Your task to perform on an android device: turn vacation reply on in the gmail app Image 0: 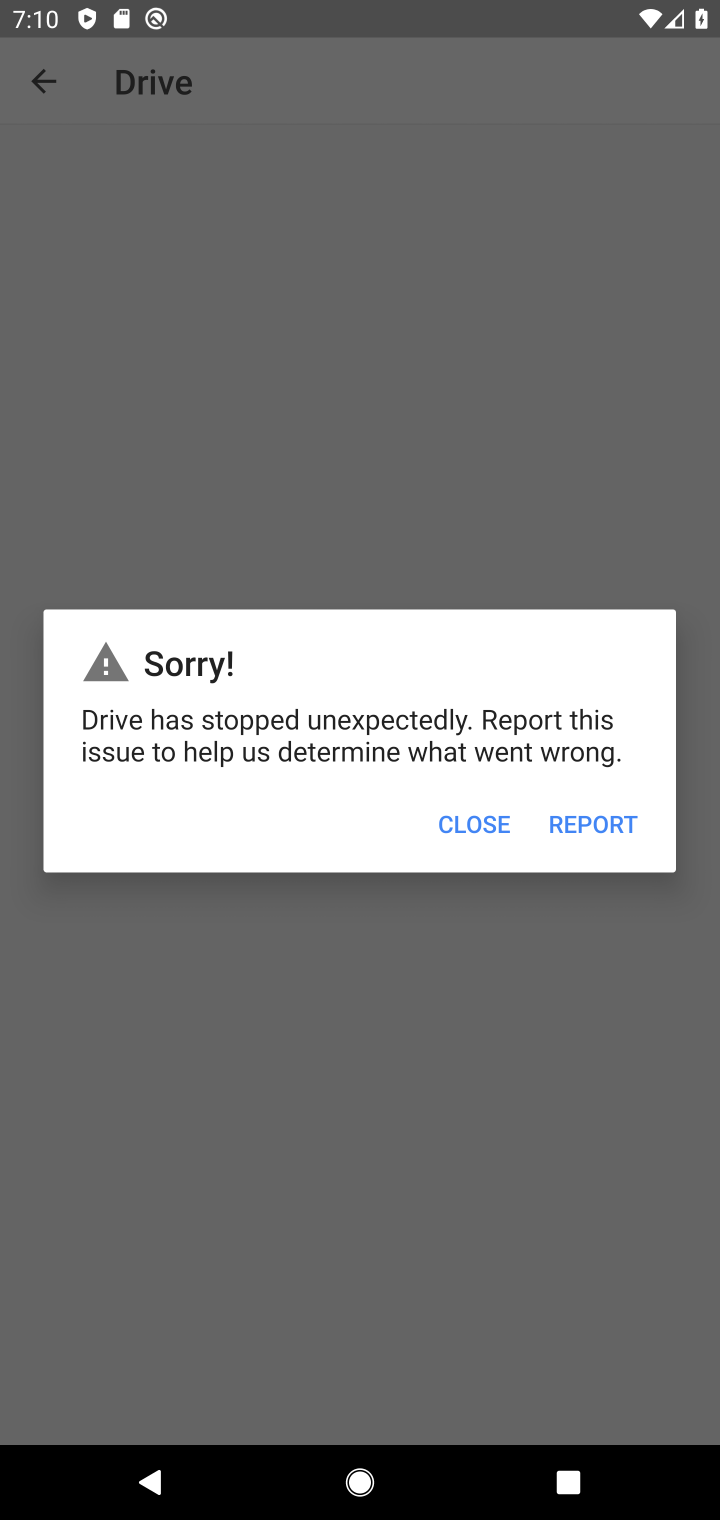
Step 0: drag from (245, 1250) to (469, 254)
Your task to perform on an android device: turn vacation reply on in the gmail app Image 1: 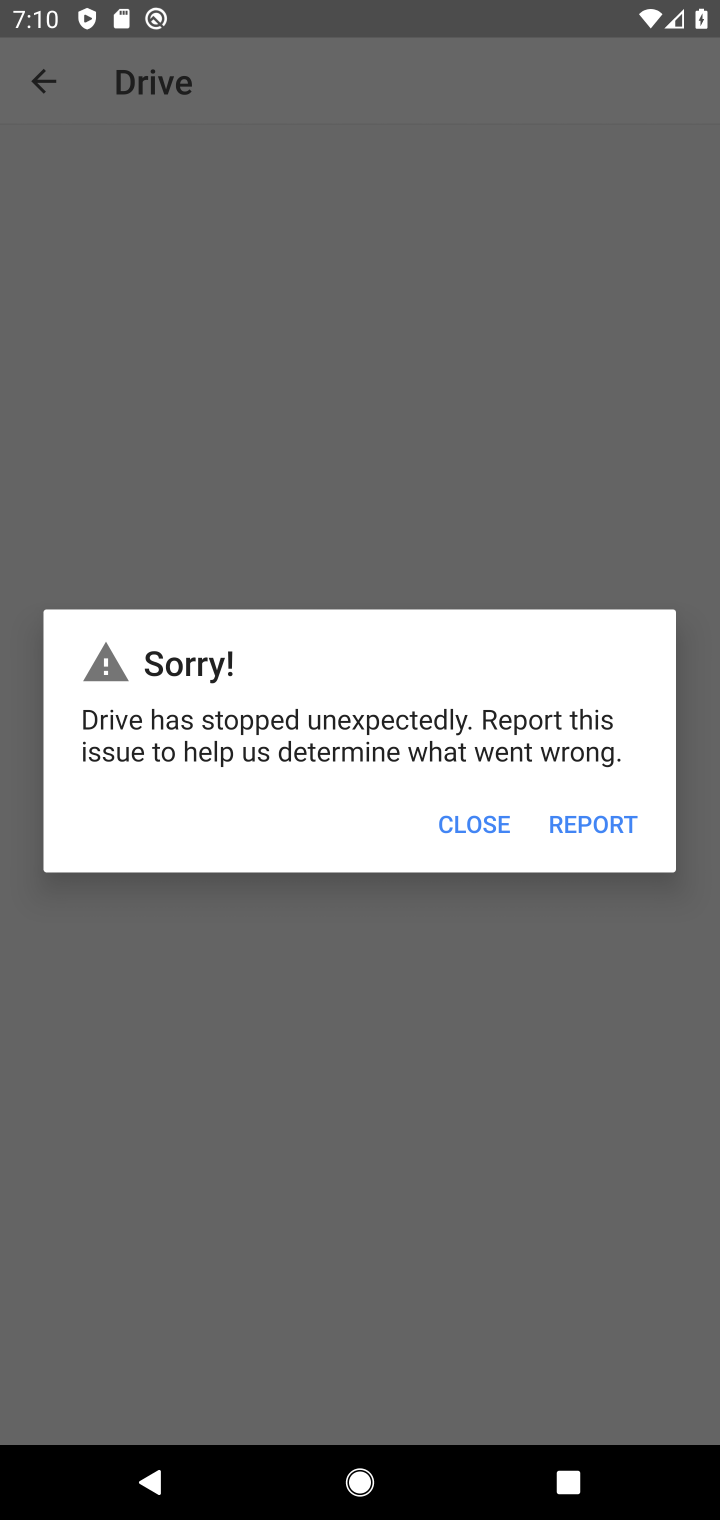
Step 1: drag from (407, 1308) to (517, 348)
Your task to perform on an android device: turn vacation reply on in the gmail app Image 2: 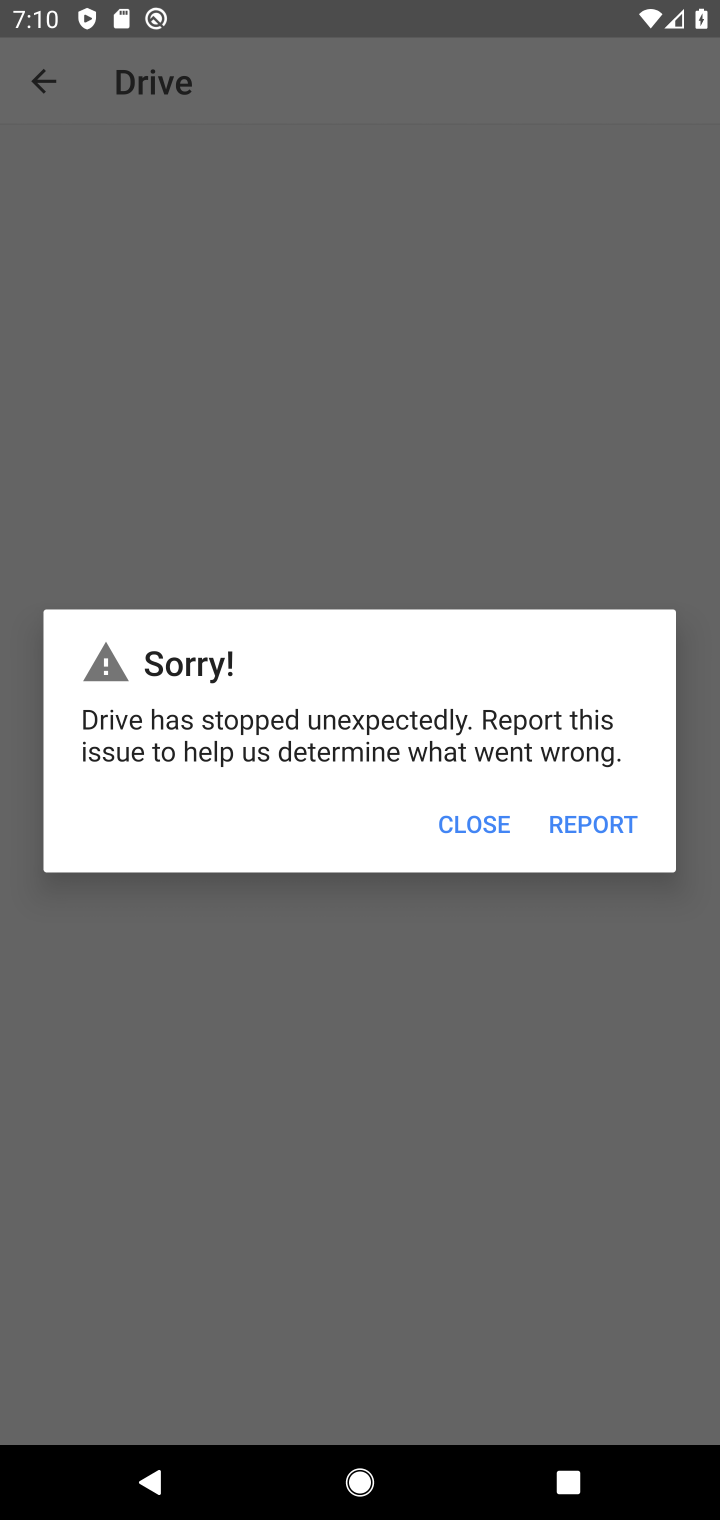
Step 2: press home button
Your task to perform on an android device: turn vacation reply on in the gmail app Image 3: 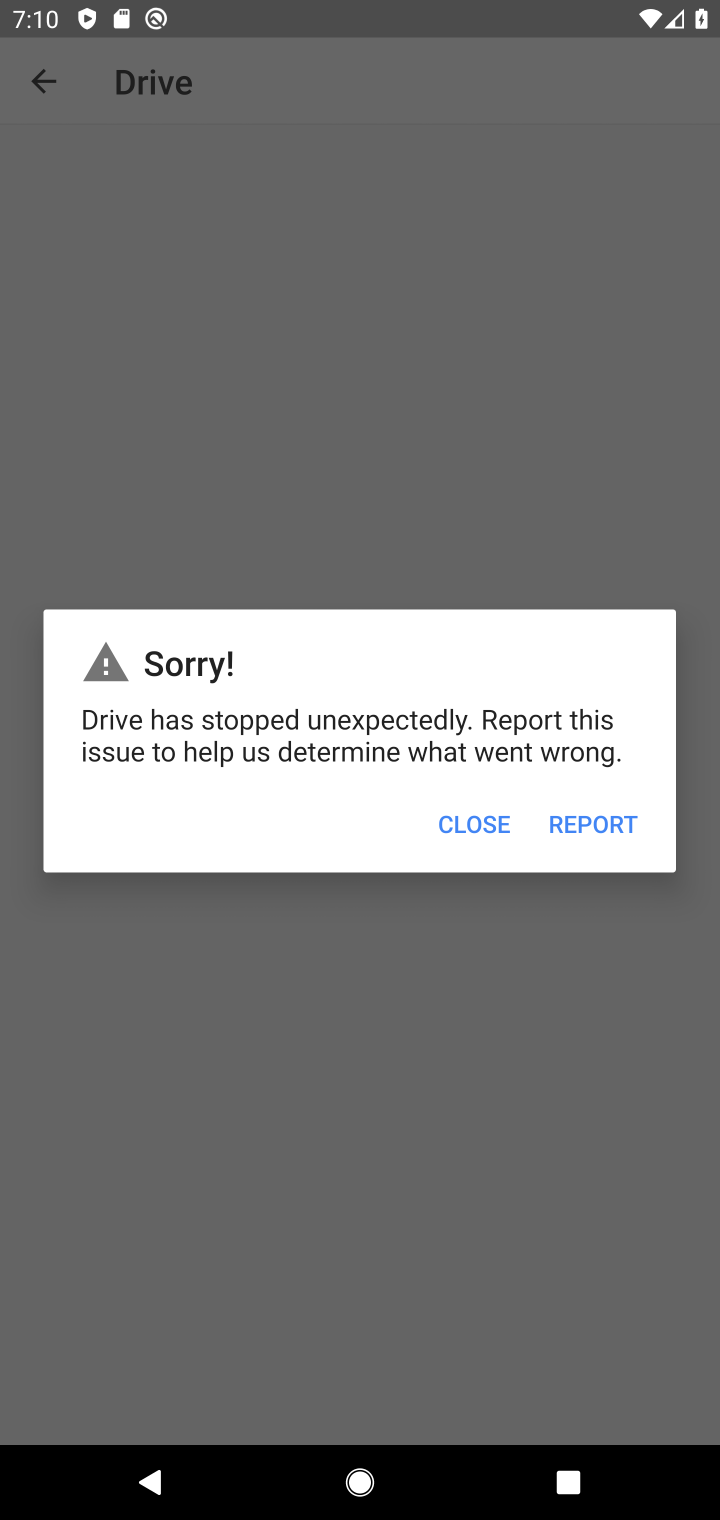
Step 3: drag from (294, 1212) to (531, 148)
Your task to perform on an android device: turn vacation reply on in the gmail app Image 4: 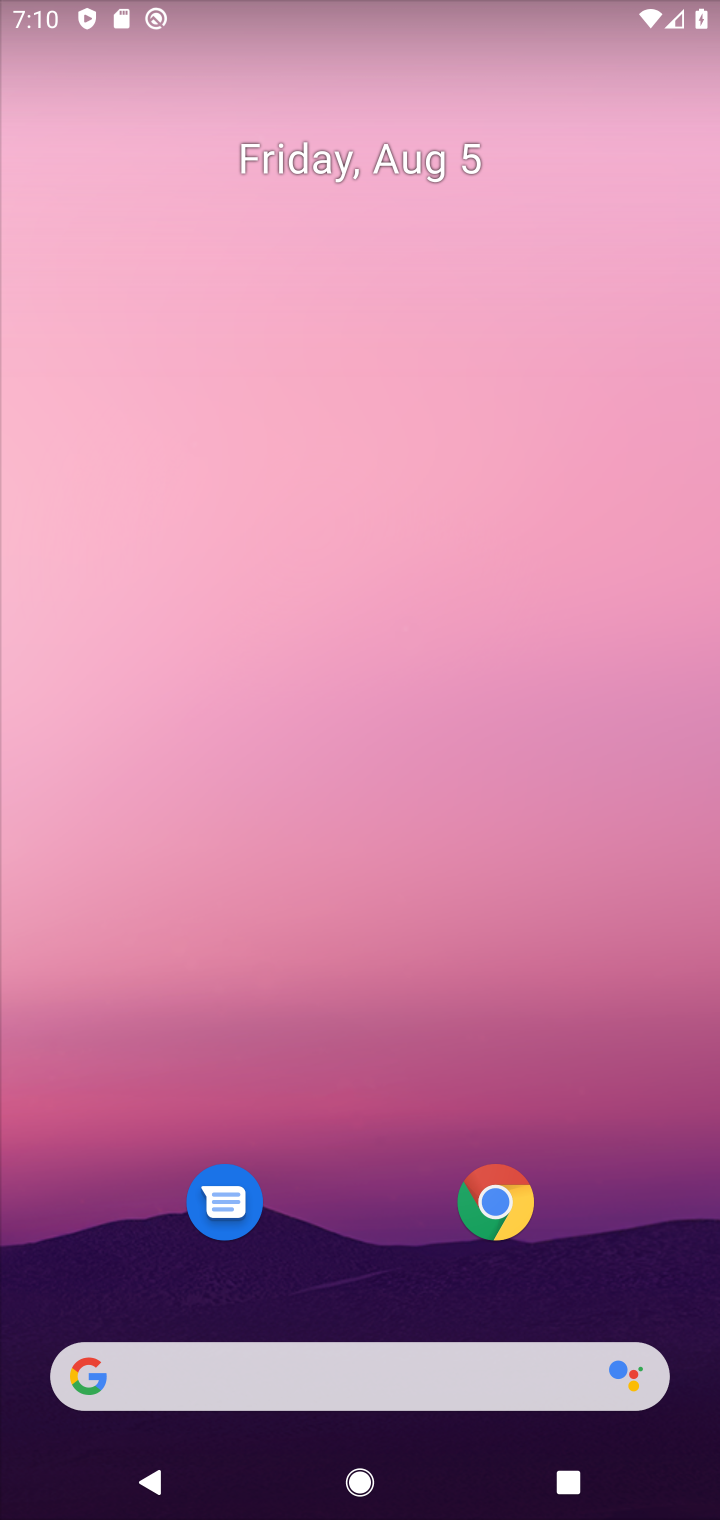
Step 4: drag from (328, 1127) to (350, 91)
Your task to perform on an android device: turn vacation reply on in the gmail app Image 5: 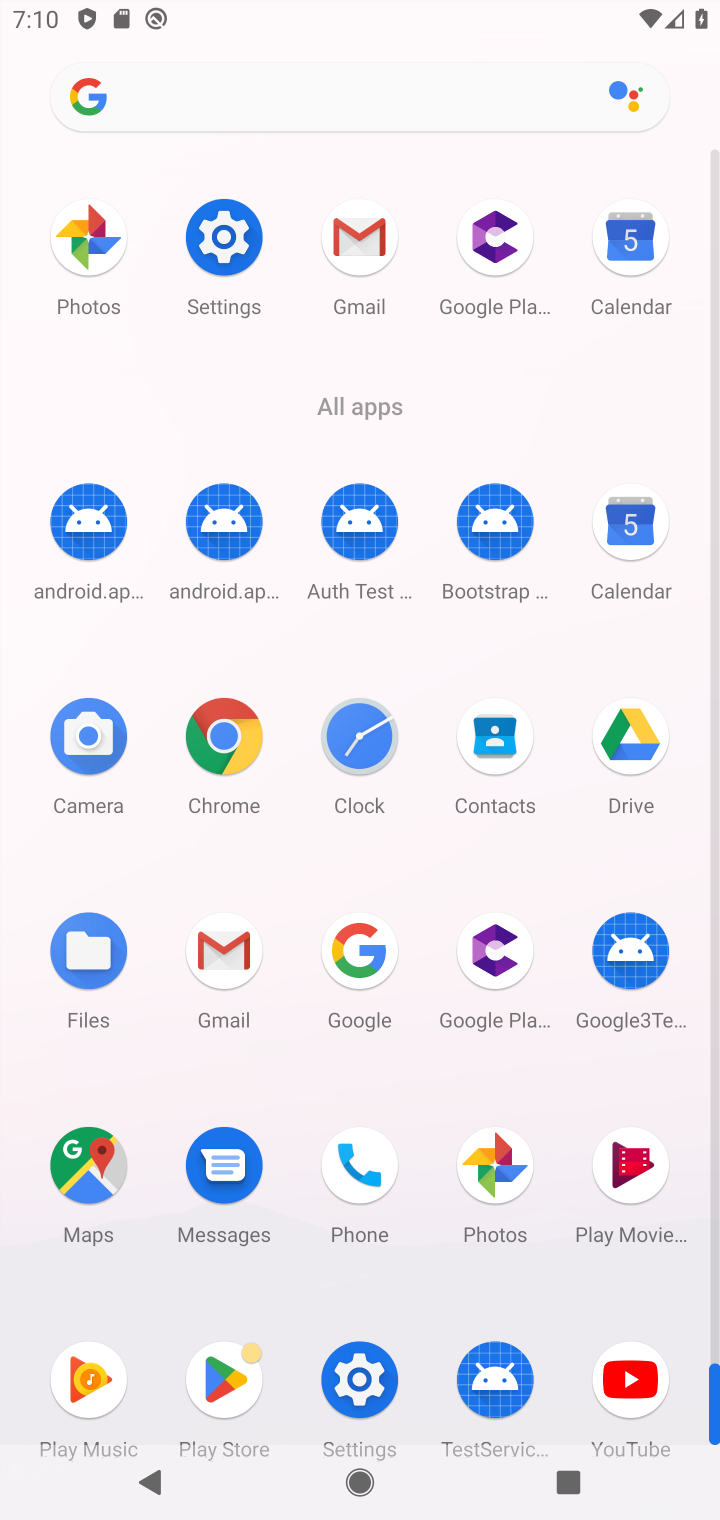
Step 5: click (216, 957)
Your task to perform on an android device: turn vacation reply on in the gmail app Image 6: 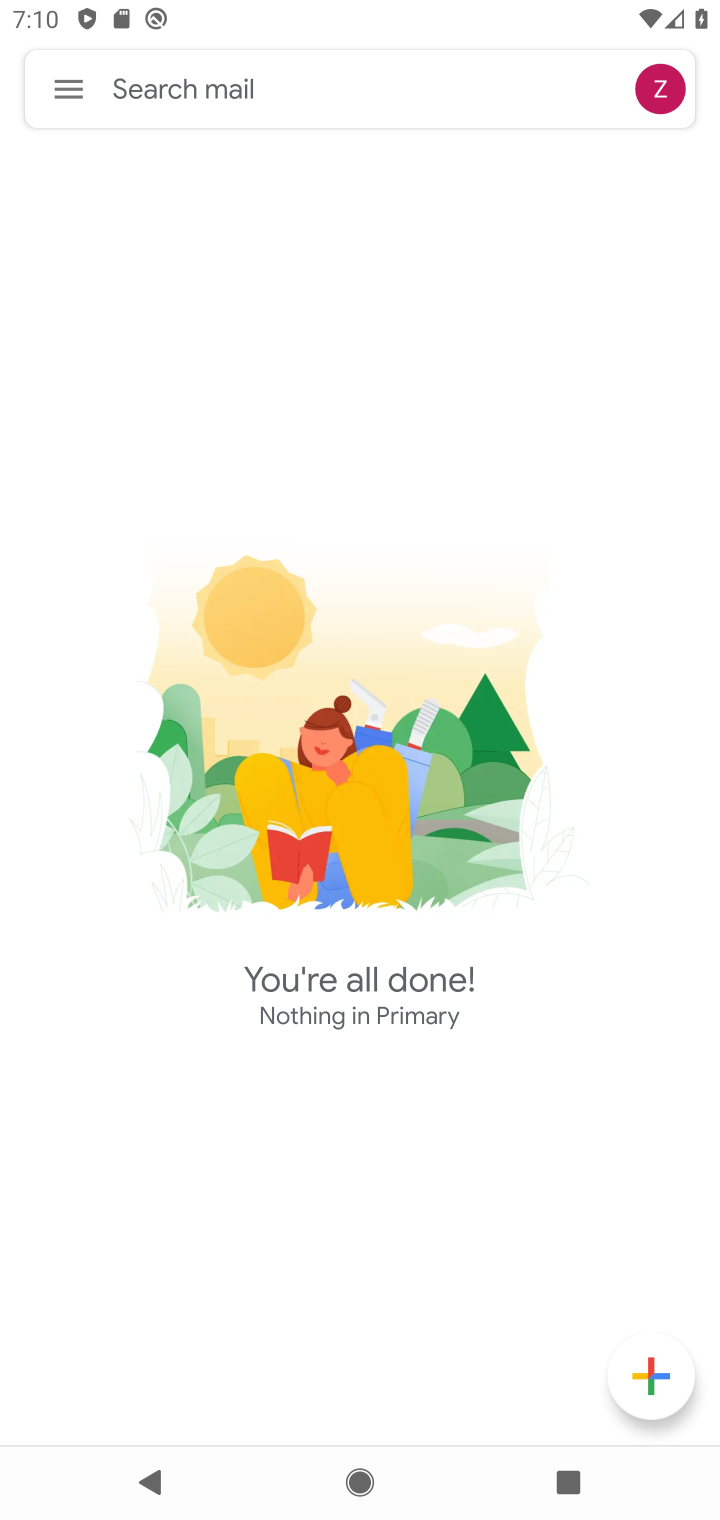
Step 6: click (79, 93)
Your task to perform on an android device: turn vacation reply on in the gmail app Image 7: 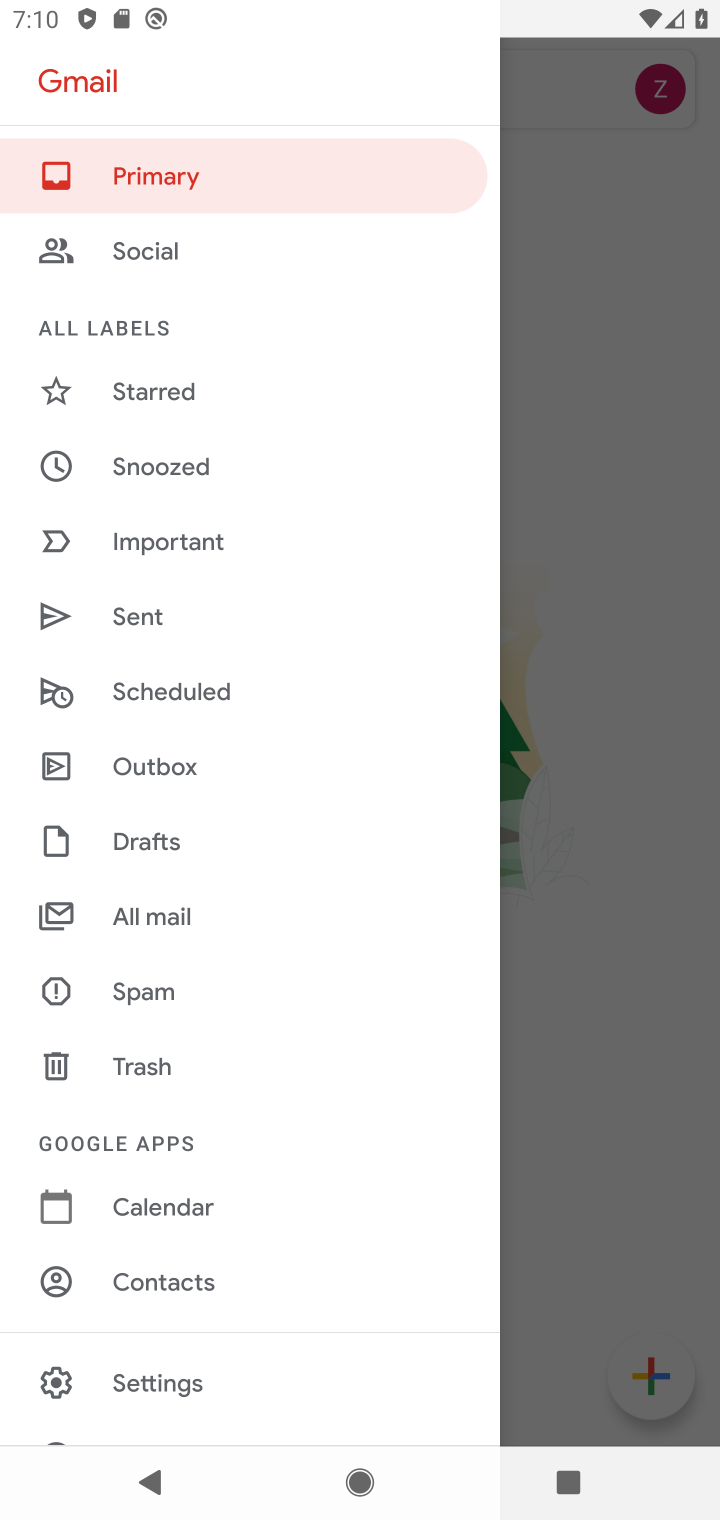
Step 7: drag from (238, 1230) to (430, 480)
Your task to perform on an android device: turn vacation reply on in the gmail app Image 8: 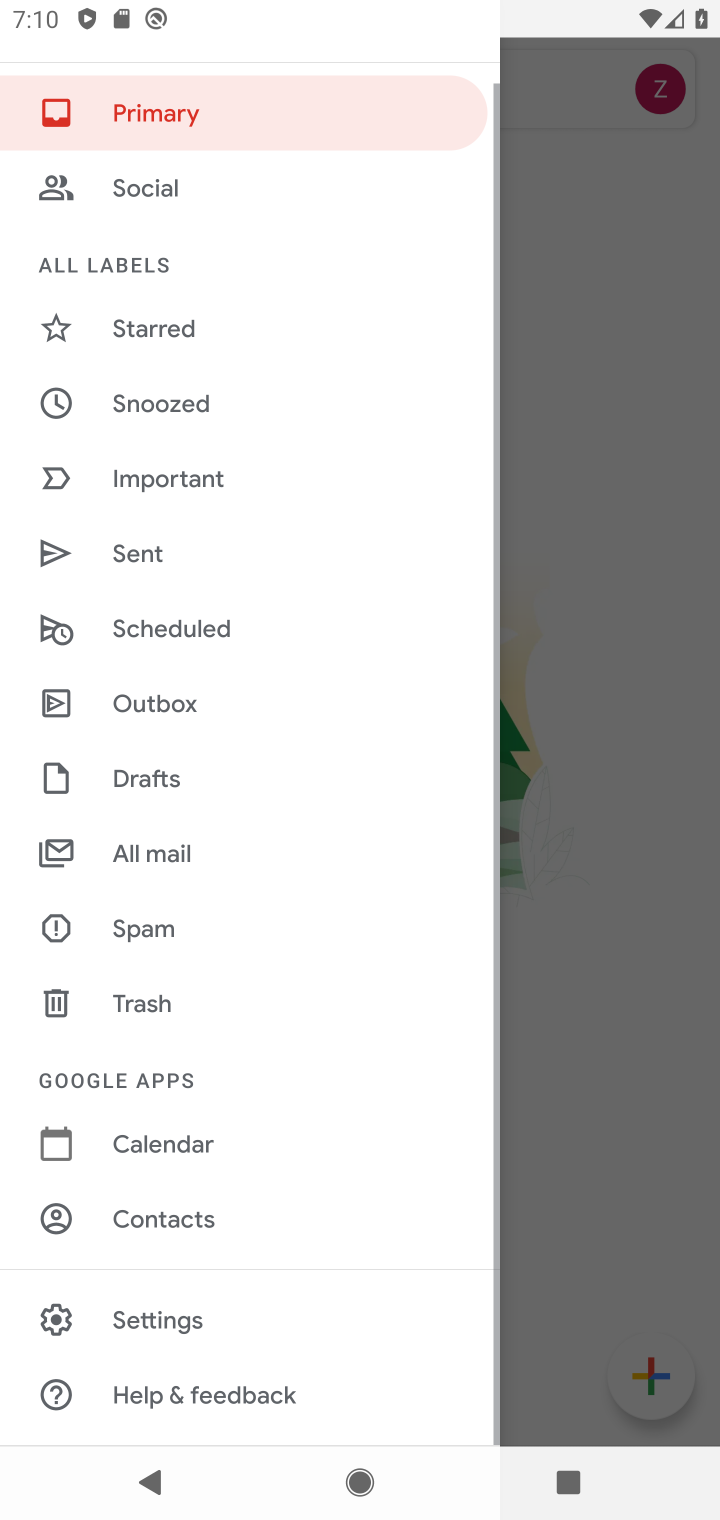
Step 8: click (167, 1347)
Your task to perform on an android device: turn vacation reply on in the gmail app Image 9: 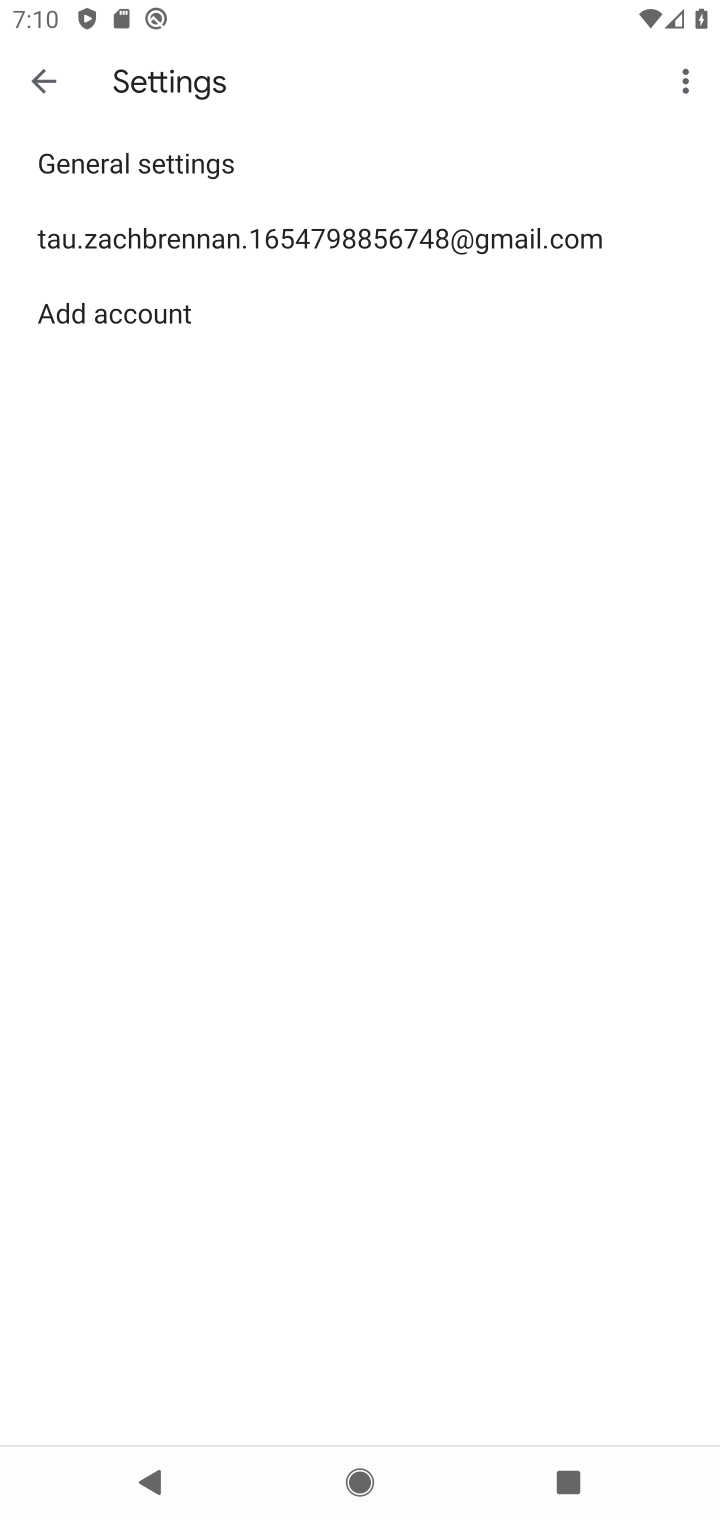
Step 9: click (300, 234)
Your task to perform on an android device: turn vacation reply on in the gmail app Image 10: 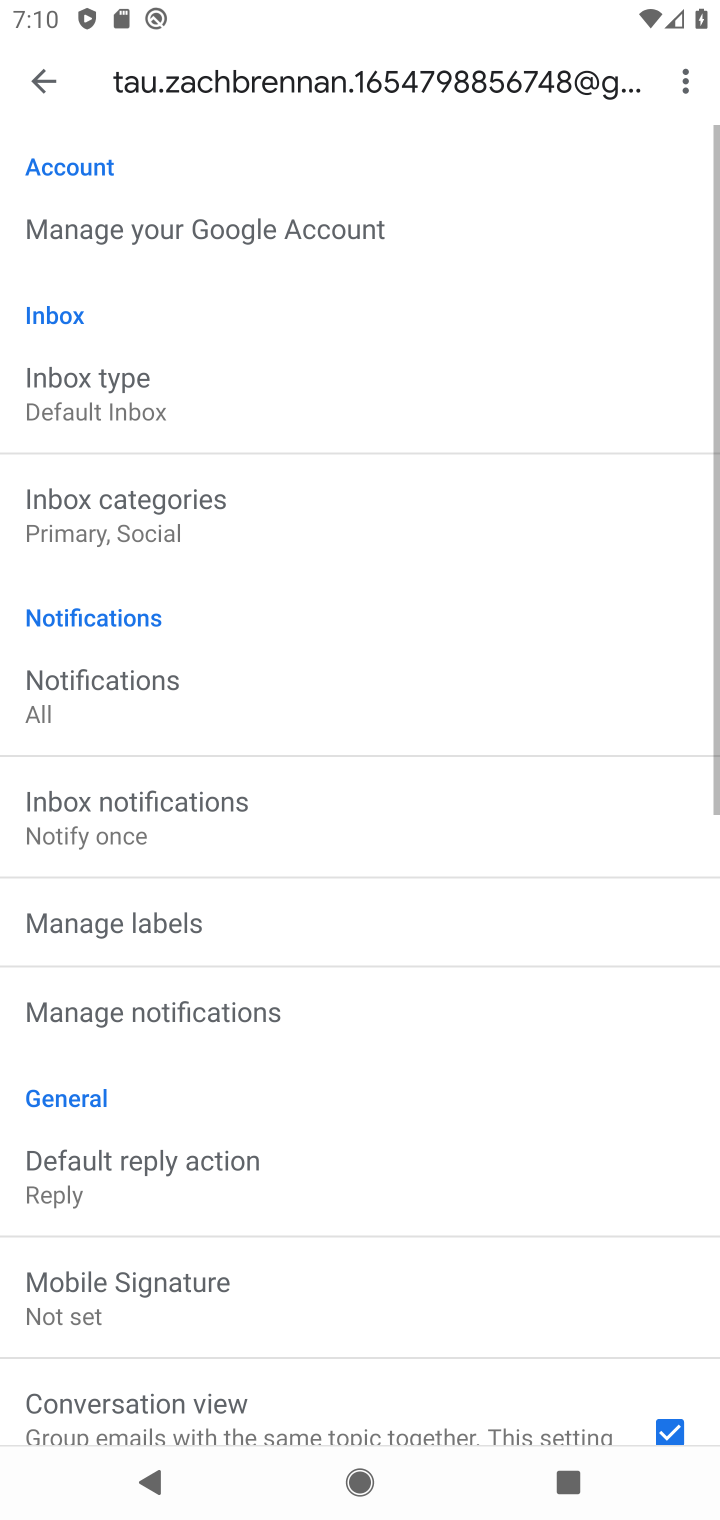
Step 10: drag from (277, 1225) to (354, 490)
Your task to perform on an android device: turn vacation reply on in the gmail app Image 11: 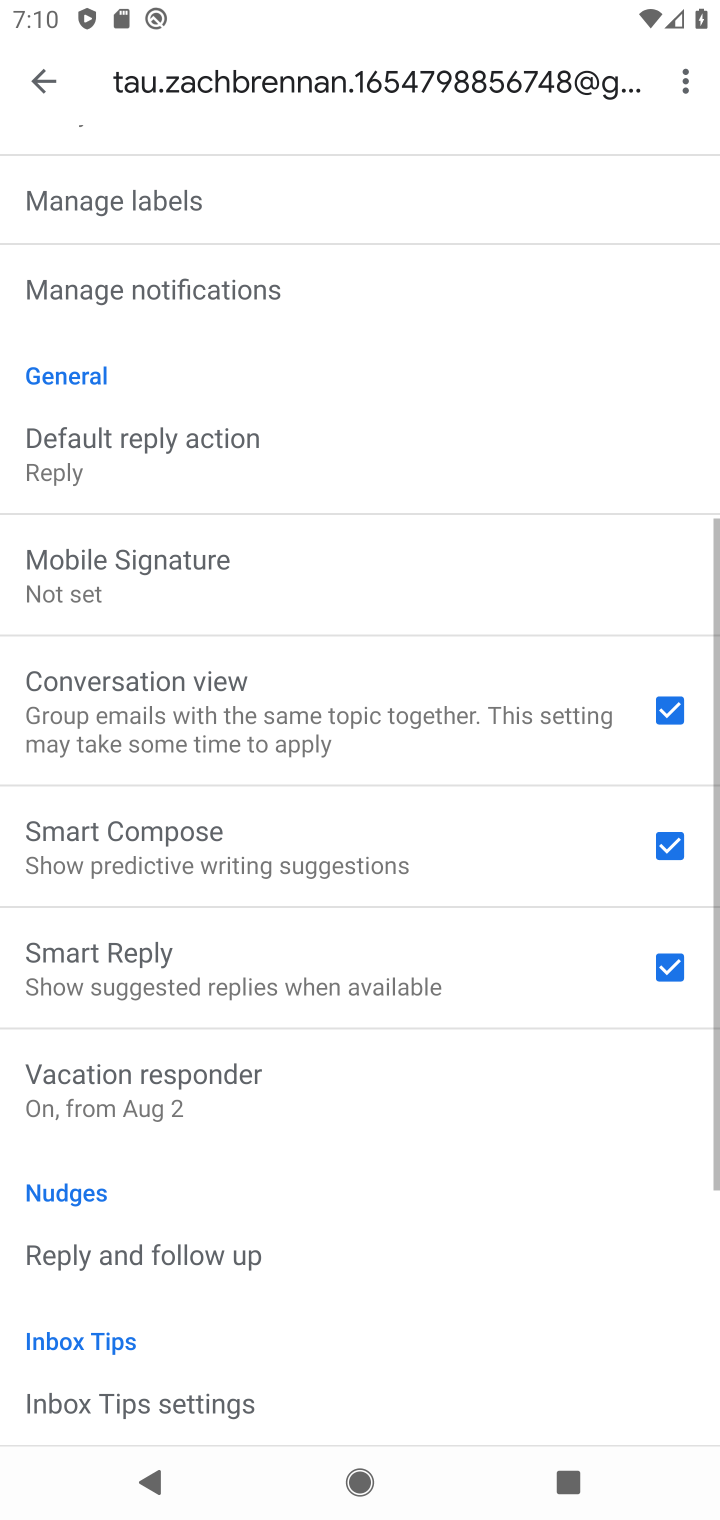
Step 11: drag from (294, 467) to (535, 1519)
Your task to perform on an android device: turn vacation reply on in the gmail app Image 12: 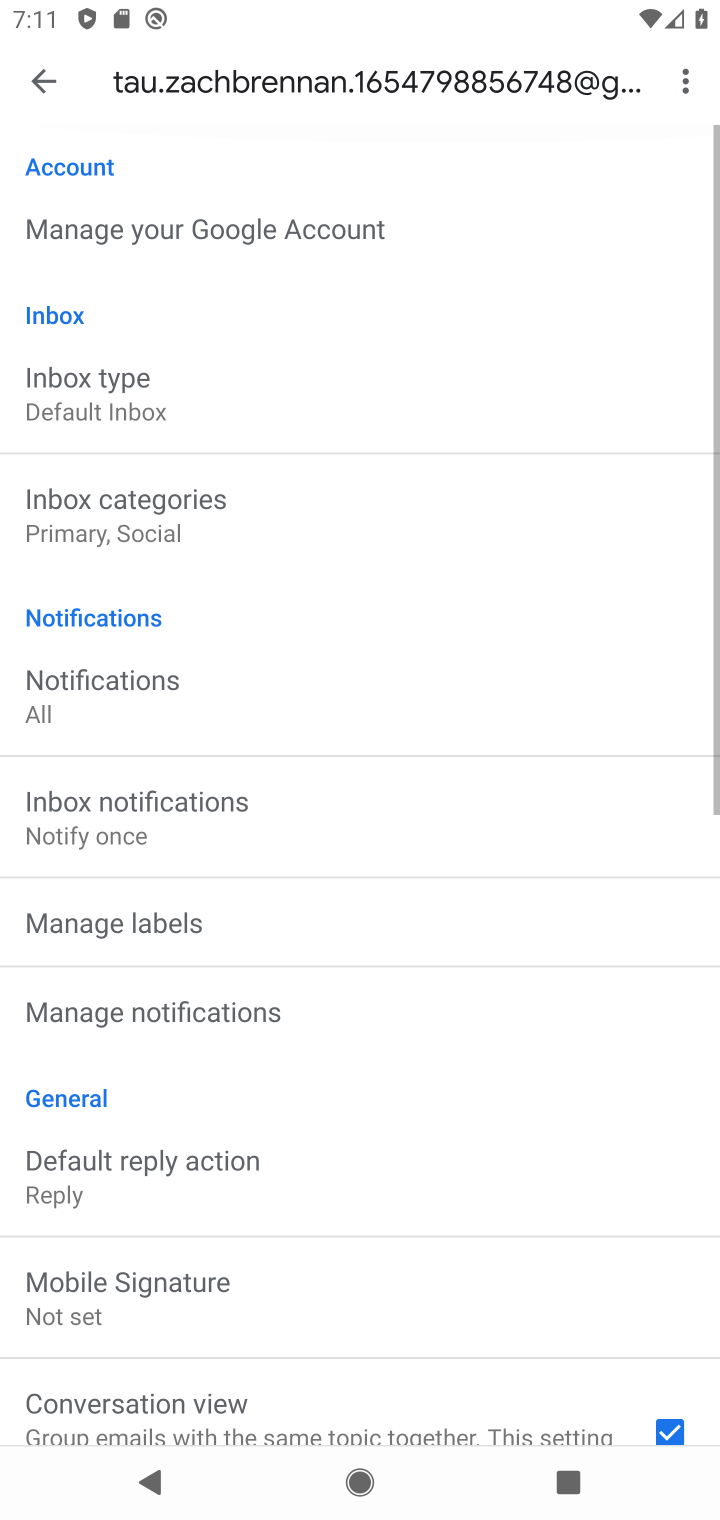
Step 12: drag from (352, 1290) to (425, 719)
Your task to perform on an android device: turn vacation reply on in the gmail app Image 13: 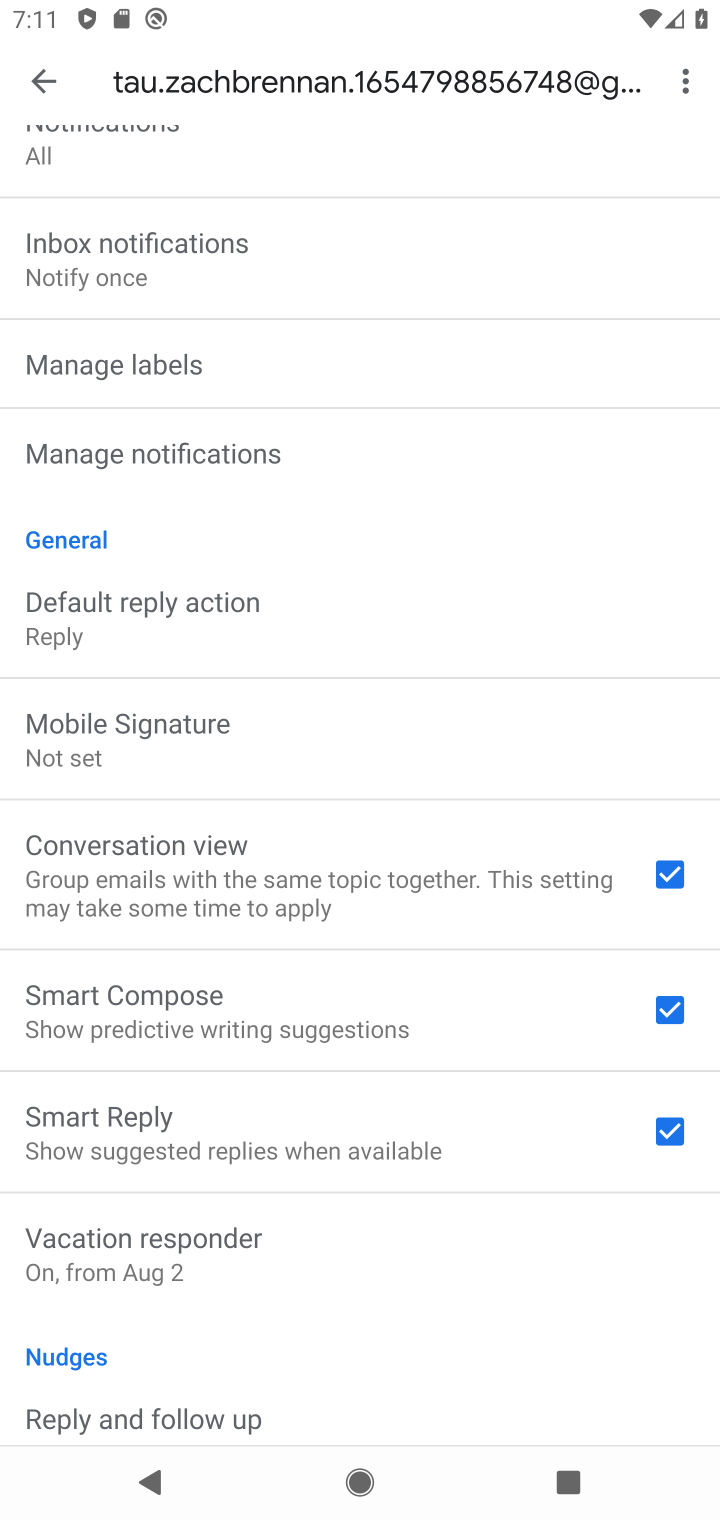
Step 13: click (193, 1248)
Your task to perform on an android device: turn vacation reply on in the gmail app Image 14: 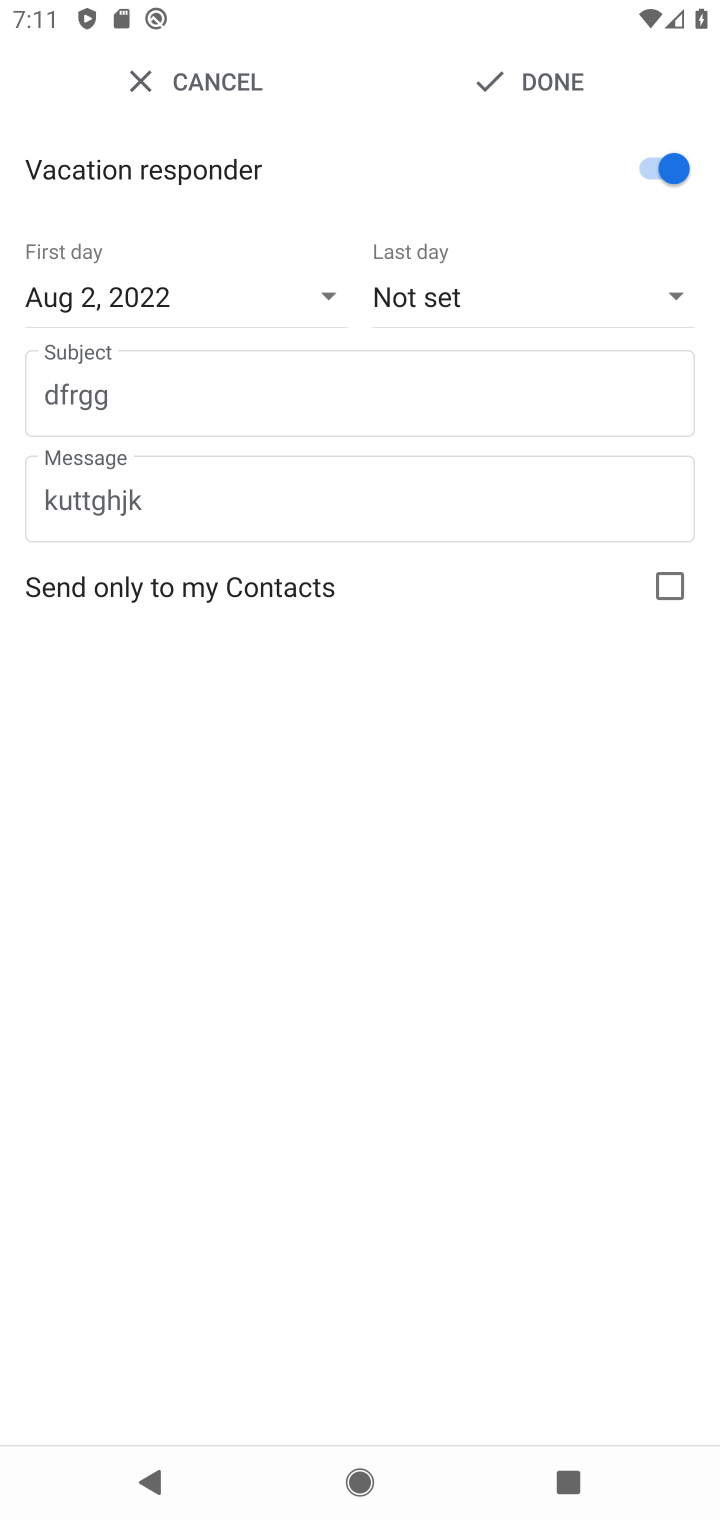
Step 14: click (517, 78)
Your task to perform on an android device: turn vacation reply on in the gmail app Image 15: 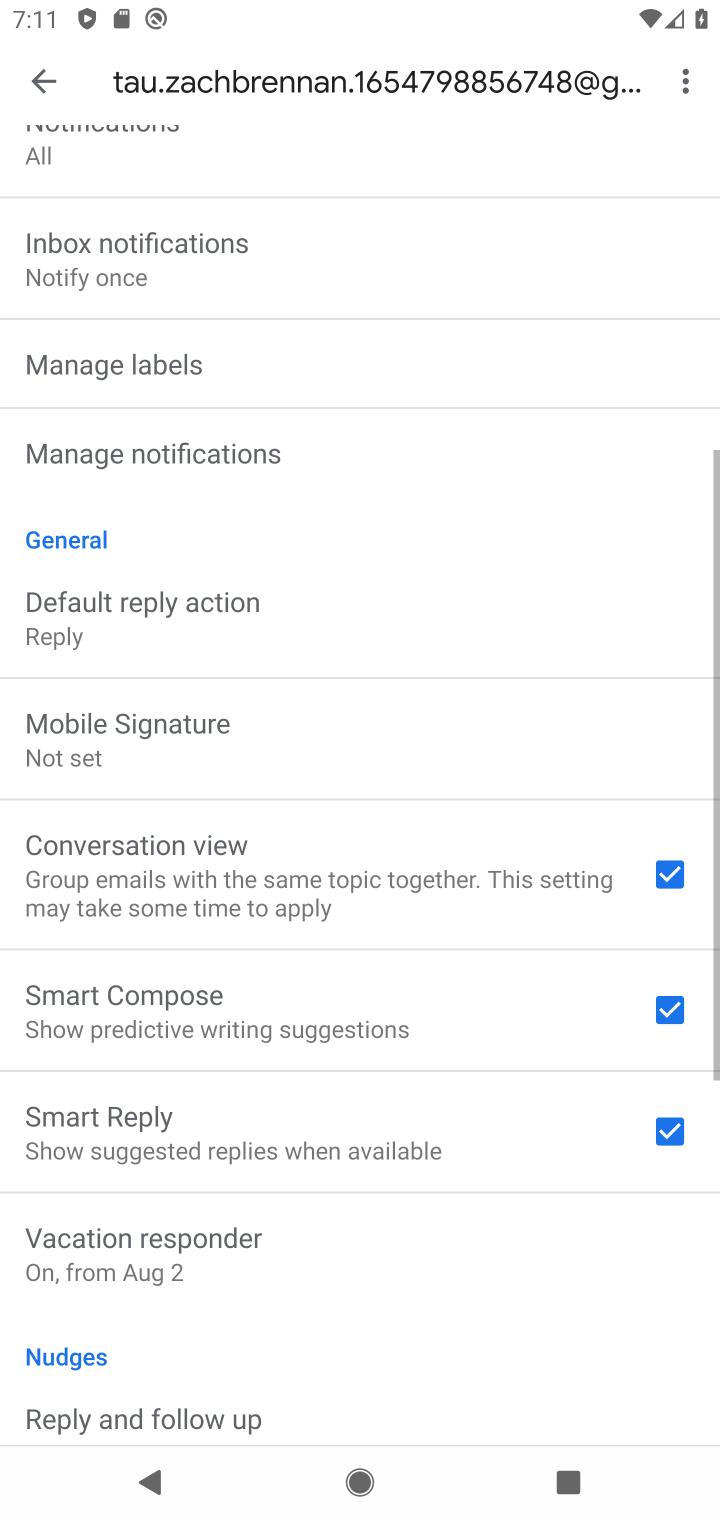
Step 15: task complete